Your task to perform on an android device: Search for usb-c to usb-b on bestbuy.com, select the first entry, add it to the cart, then select checkout. Image 0: 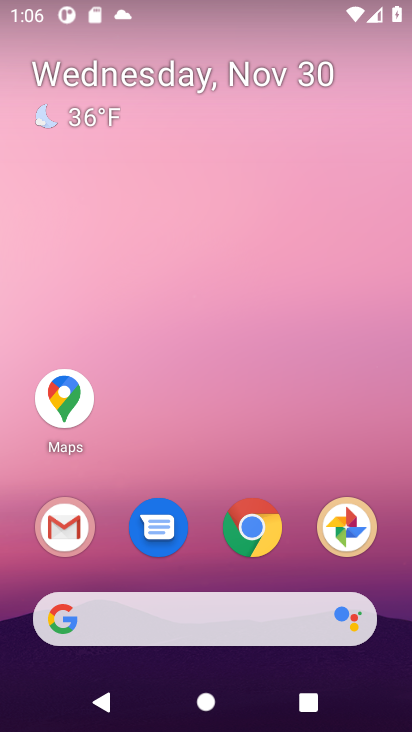
Step 0: click (149, 619)
Your task to perform on an android device: Search for usb-c to usb-b on bestbuy.com, select the first entry, add it to the cart, then select checkout. Image 1: 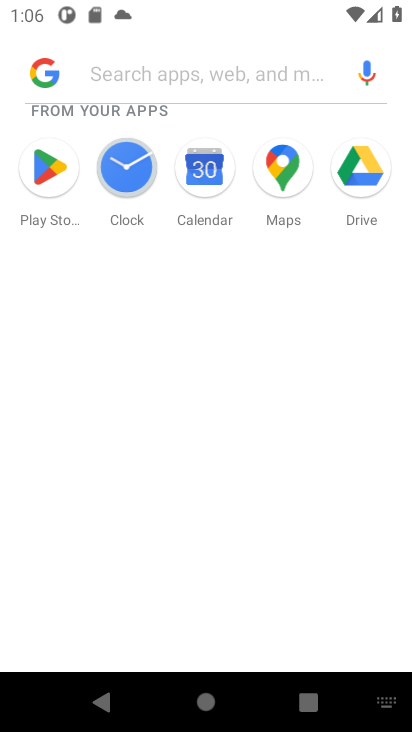
Step 1: press home button
Your task to perform on an android device: Search for usb-c to usb-b on bestbuy.com, select the first entry, add it to the cart, then select checkout. Image 2: 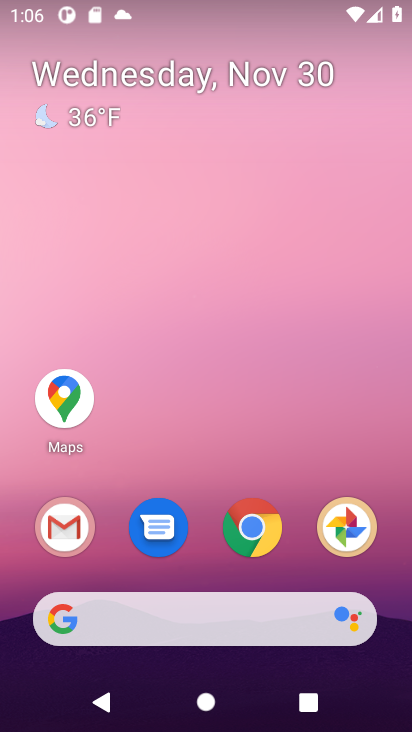
Step 2: click (273, 524)
Your task to perform on an android device: Search for usb-c to usb-b on bestbuy.com, select the first entry, add it to the cart, then select checkout. Image 3: 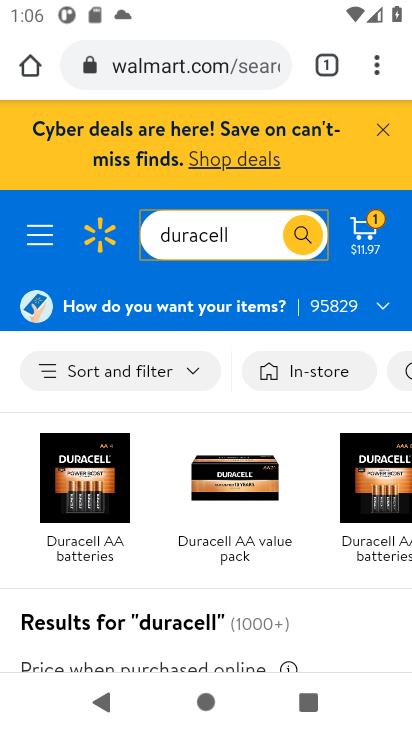
Step 3: click (307, 239)
Your task to perform on an android device: Search for usb-c to usb-b on bestbuy.com, select the first entry, add it to the cart, then select checkout. Image 4: 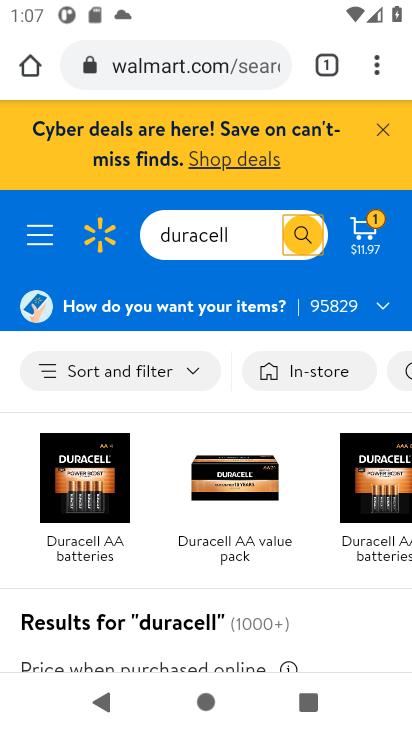
Step 4: click (307, 239)
Your task to perform on an android device: Search for usb-c to usb-b on bestbuy.com, select the first entry, add it to the cart, then select checkout. Image 5: 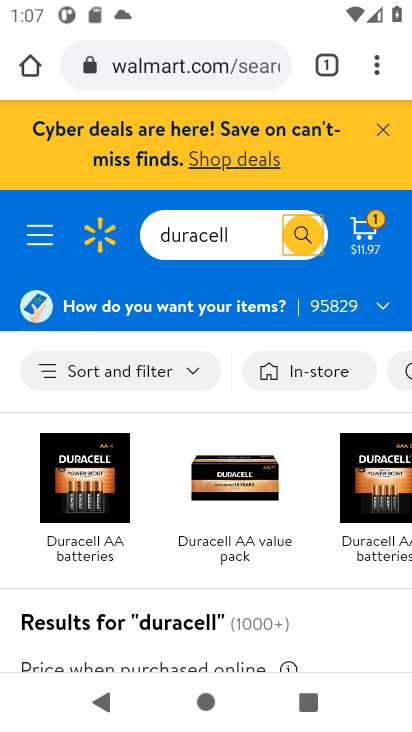
Step 5: task complete